Your task to perform on an android device: Go to internet settings Image 0: 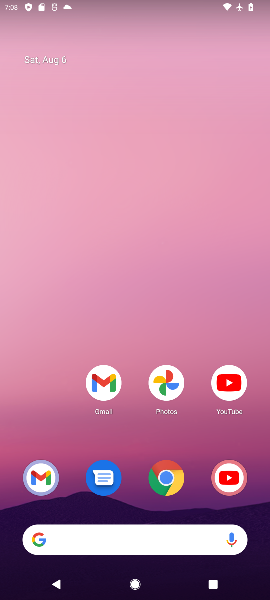
Step 0: press home button
Your task to perform on an android device: Go to internet settings Image 1: 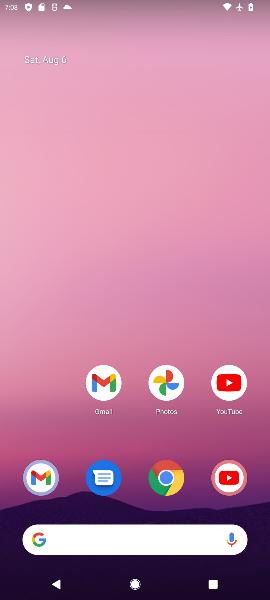
Step 1: drag from (54, 413) to (27, 50)
Your task to perform on an android device: Go to internet settings Image 2: 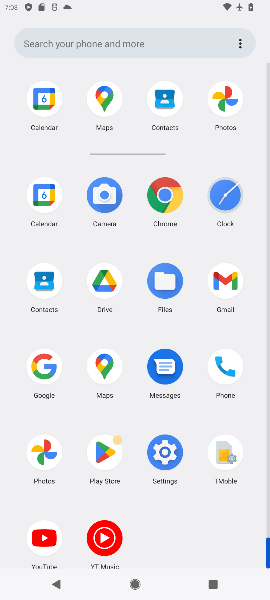
Step 2: click (159, 462)
Your task to perform on an android device: Go to internet settings Image 3: 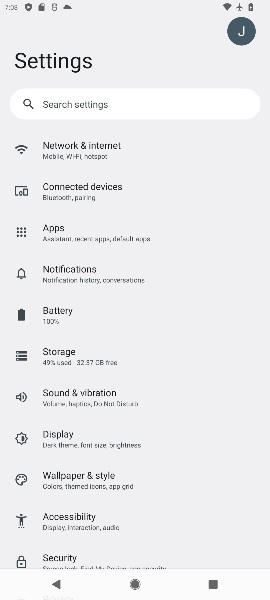
Step 3: click (78, 154)
Your task to perform on an android device: Go to internet settings Image 4: 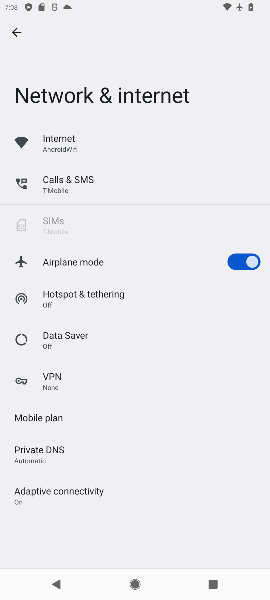
Step 4: task complete